Your task to perform on an android device: Open Youtube and go to the subscriptions tab Image 0: 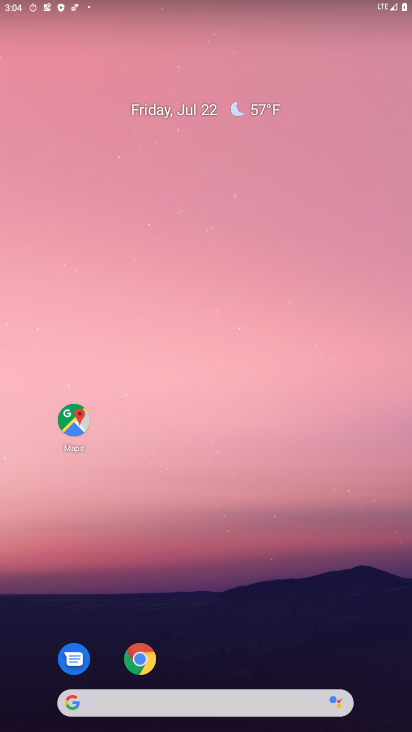
Step 0: drag from (308, 656) to (351, 56)
Your task to perform on an android device: Open Youtube and go to the subscriptions tab Image 1: 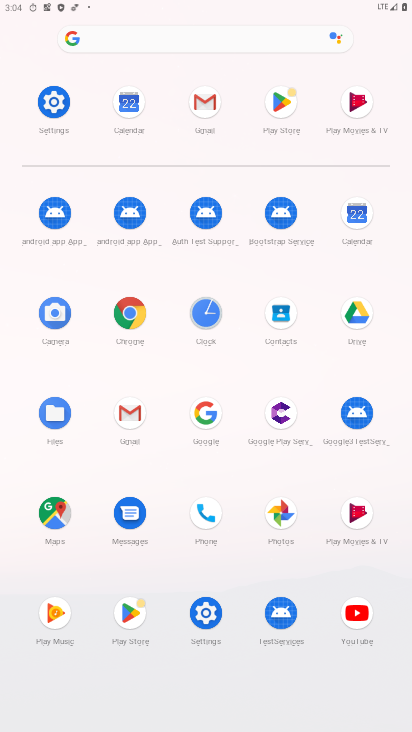
Step 1: click (353, 613)
Your task to perform on an android device: Open Youtube and go to the subscriptions tab Image 2: 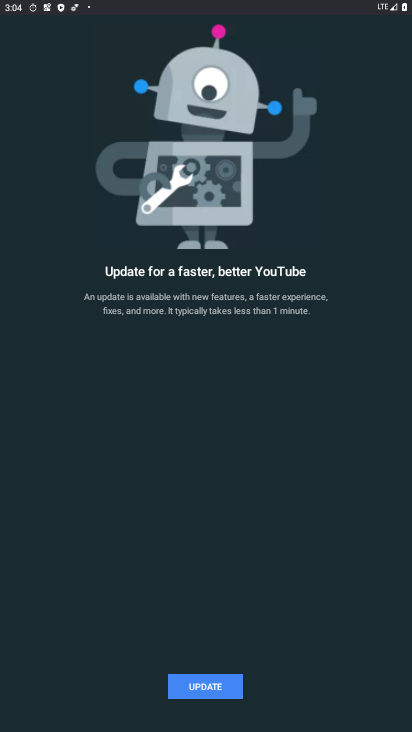
Step 2: click (190, 700)
Your task to perform on an android device: Open Youtube and go to the subscriptions tab Image 3: 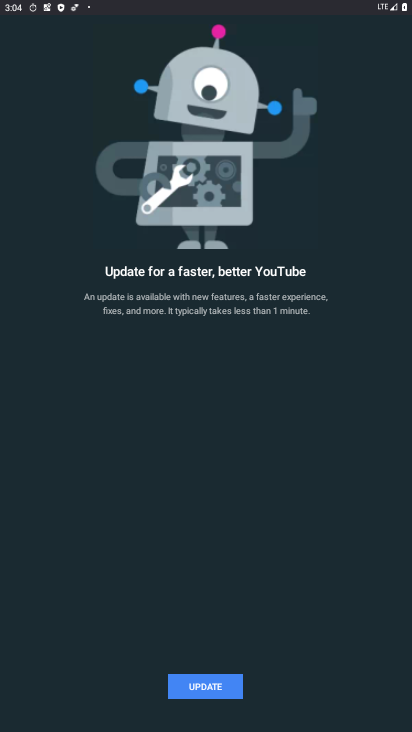
Step 3: click (191, 689)
Your task to perform on an android device: Open Youtube and go to the subscriptions tab Image 4: 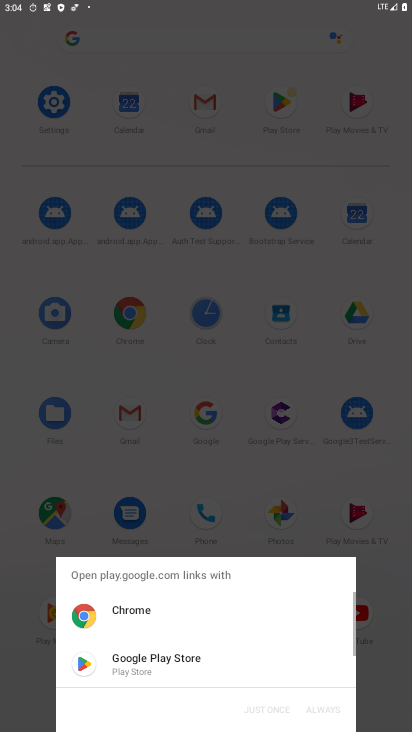
Step 4: click (190, 652)
Your task to perform on an android device: Open Youtube and go to the subscriptions tab Image 5: 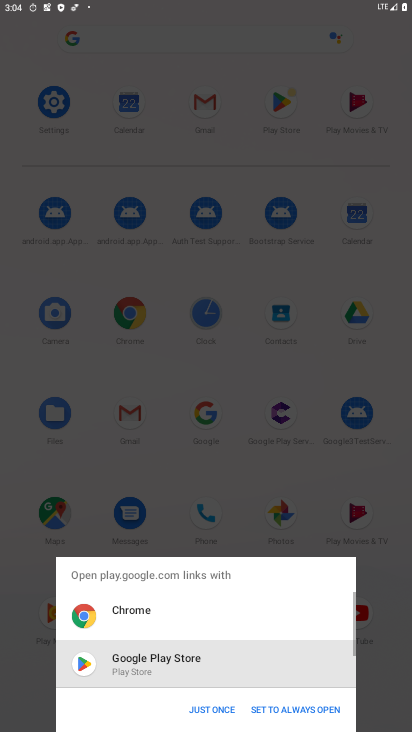
Step 5: click (211, 714)
Your task to perform on an android device: Open Youtube and go to the subscriptions tab Image 6: 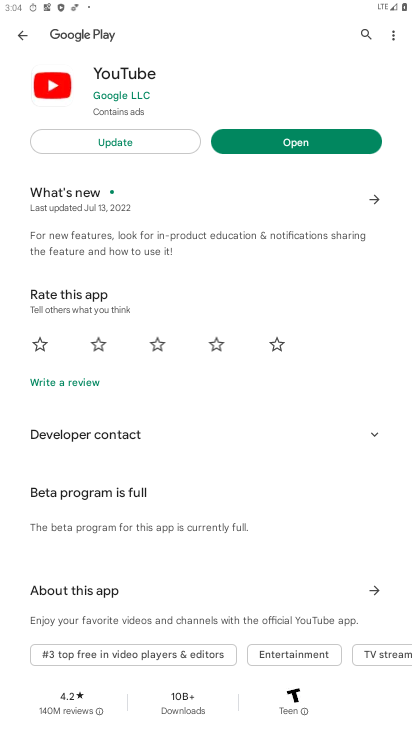
Step 6: click (127, 134)
Your task to perform on an android device: Open Youtube and go to the subscriptions tab Image 7: 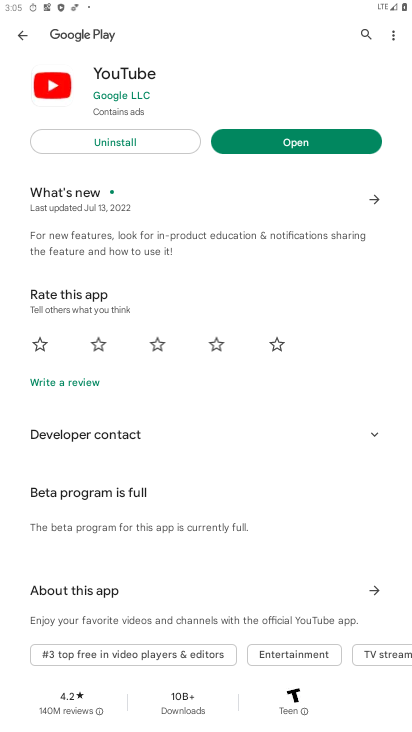
Step 7: click (279, 136)
Your task to perform on an android device: Open Youtube and go to the subscriptions tab Image 8: 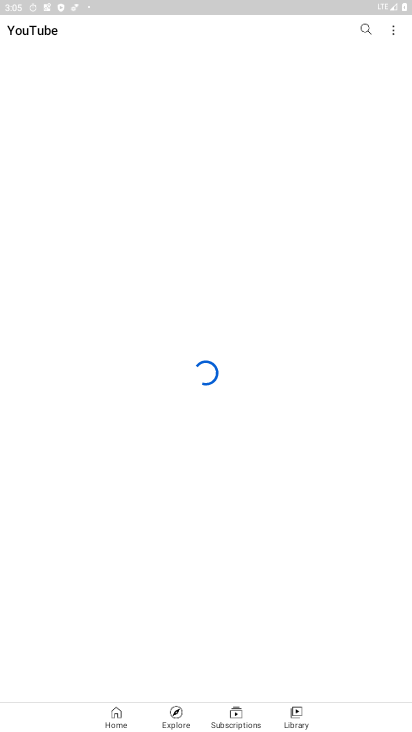
Step 8: click (235, 714)
Your task to perform on an android device: Open Youtube and go to the subscriptions tab Image 9: 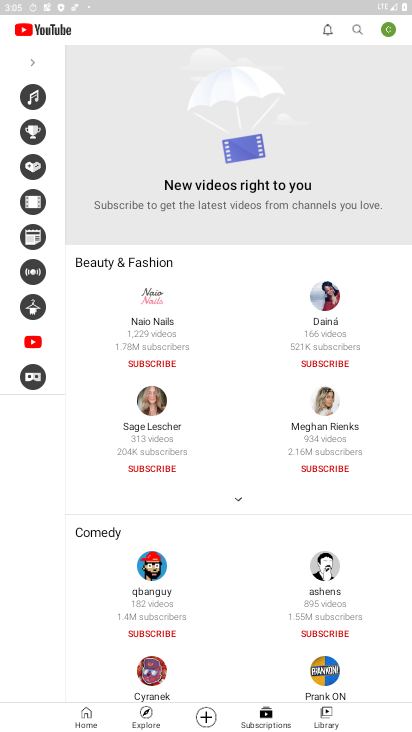
Step 9: task complete